Your task to perform on an android device: change your default location settings in chrome Image 0: 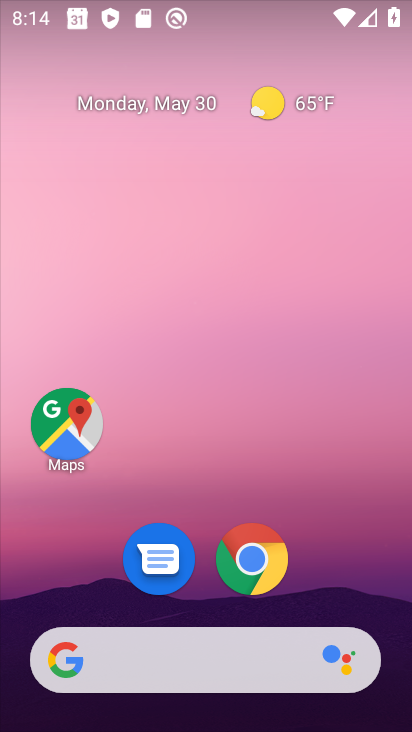
Step 0: click (260, 563)
Your task to perform on an android device: change your default location settings in chrome Image 1: 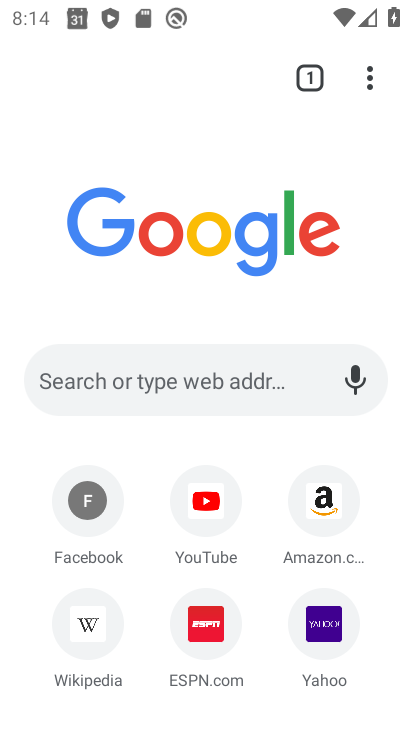
Step 1: drag from (370, 77) to (117, 633)
Your task to perform on an android device: change your default location settings in chrome Image 2: 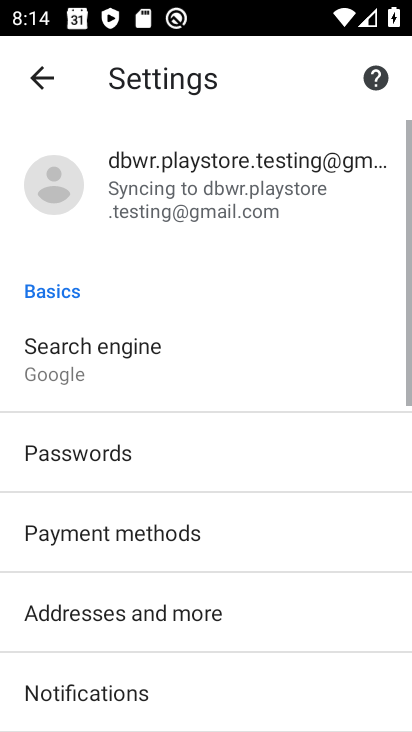
Step 2: drag from (139, 664) to (234, 324)
Your task to perform on an android device: change your default location settings in chrome Image 3: 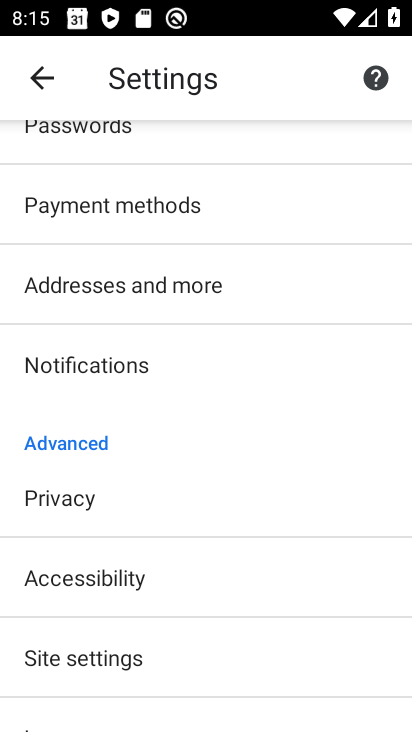
Step 3: drag from (165, 650) to (192, 400)
Your task to perform on an android device: change your default location settings in chrome Image 4: 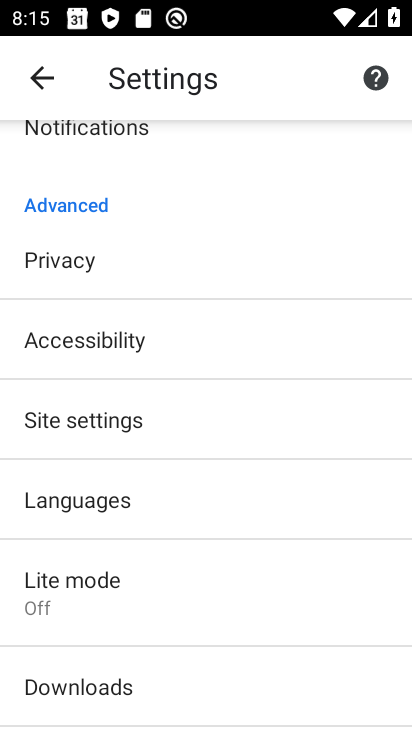
Step 4: click (97, 423)
Your task to perform on an android device: change your default location settings in chrome Image 5: 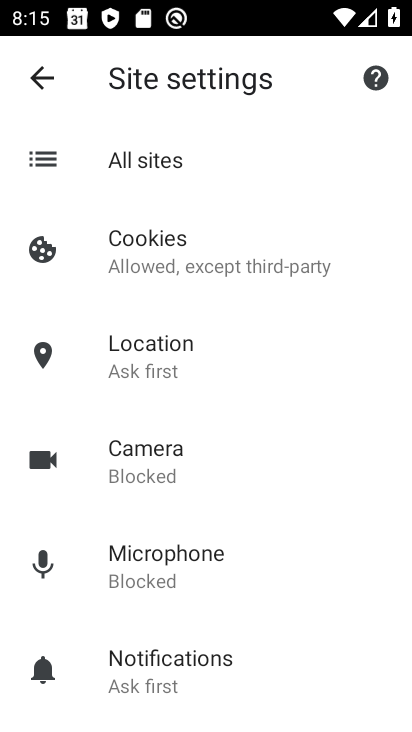
Step 5: click (168, 347)
Your task to perform on an android device: change your default location settings in chrome Image 6: 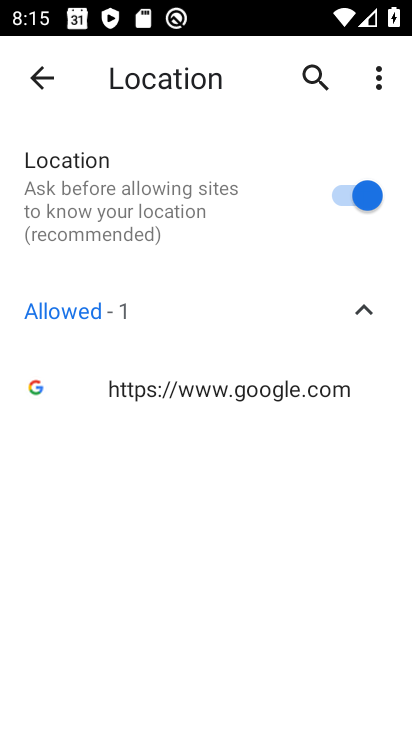
Step 6: click (369, 189)
Your task to perform on an android device: change your default location settings in chrome Image 7: 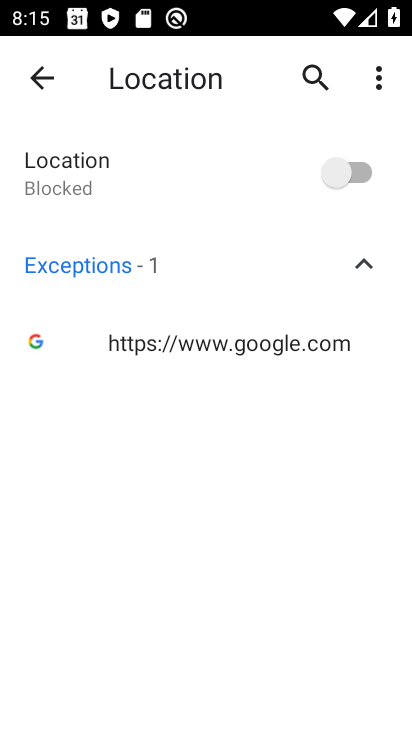
Step 7: task complete